Your task to perform on an android device: allow cookies in the chrome app Image 0: 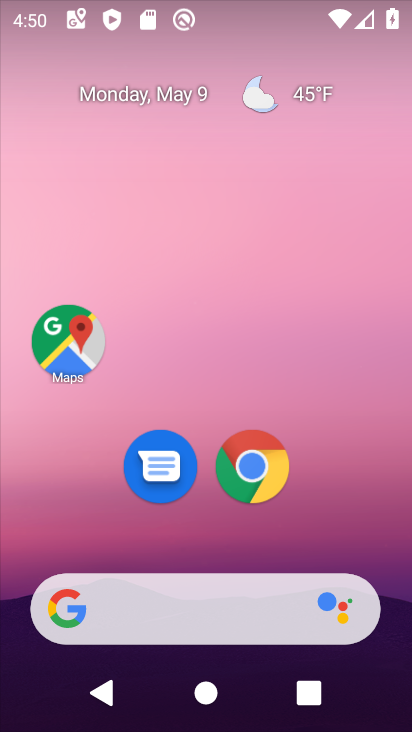
Step 0: click (255, 462)
Your task to perform on an android device: allow cookies in the chrome app Image 1: 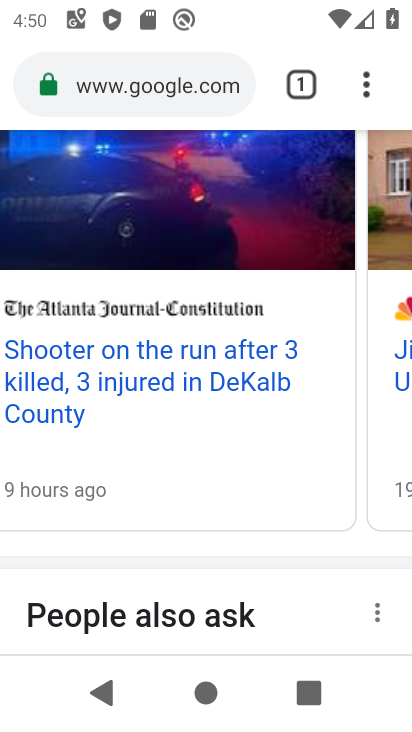
Step 1: drag from (368, 84) to (134, 530)
Your task to perform on an android device: allow cookies in the chrome app Image 2: 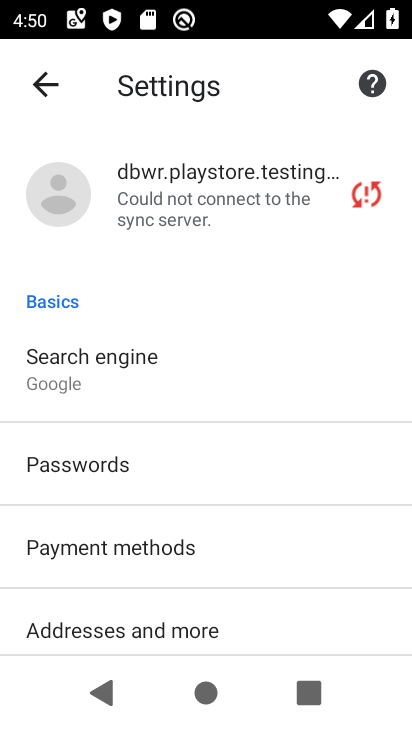
Step 2: drag from (172, 535) to (187, 195)
Your task to perform on an android device: allow cookies in the chrome app Image 3: 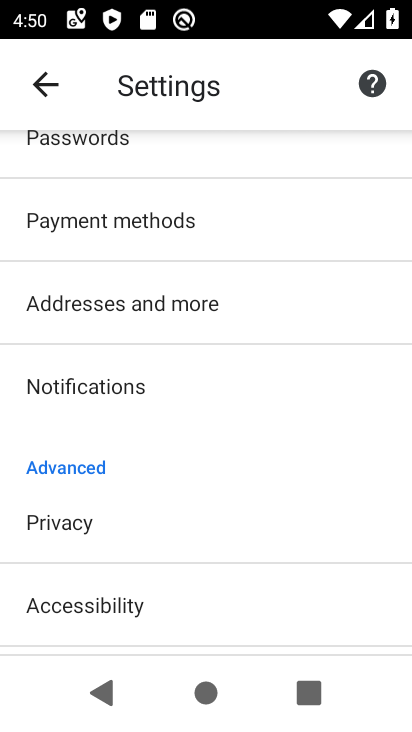
Step 3: drag from (219, 495) to (217, 168)
Your task to perform on an android device: allow cookies in the chrome app Image 4: 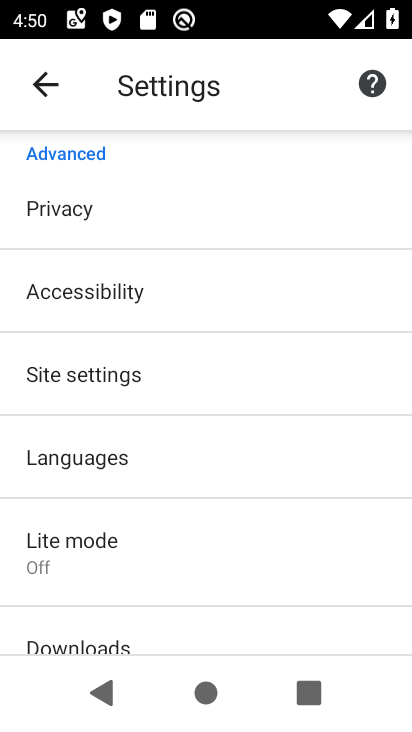
Step 4: click (155, 363)
Your task to perform on an android device: allow cookies in the chrome app Image 5: 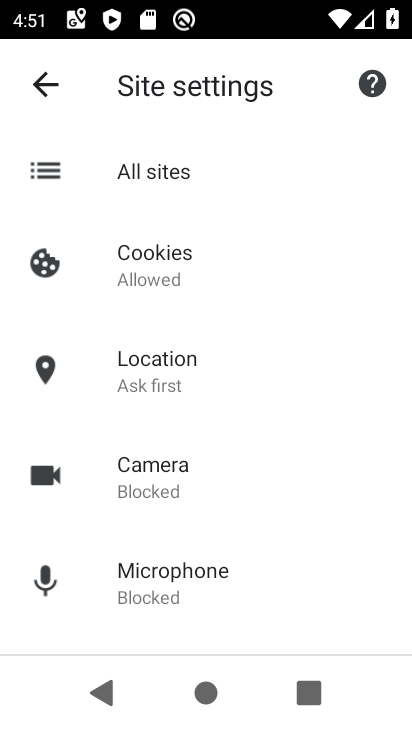
Step 5: click (204, 265)
Your task to perform on an android device: allow cookies in the chrome app Image 6: 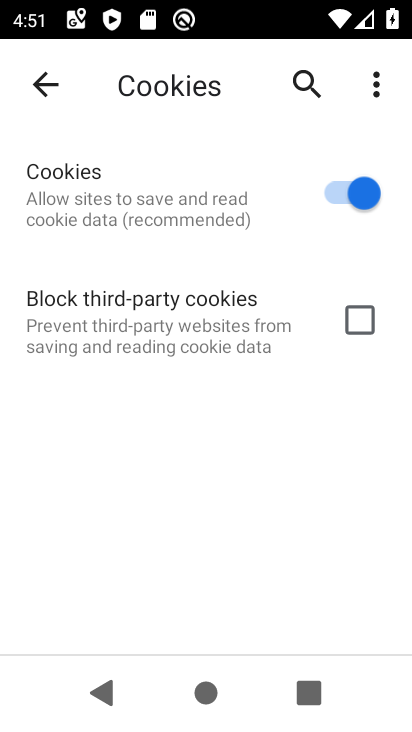
Step 6: task complete